Your task to perform on an android device: Search for pizza restaurants on Maps Image 0: 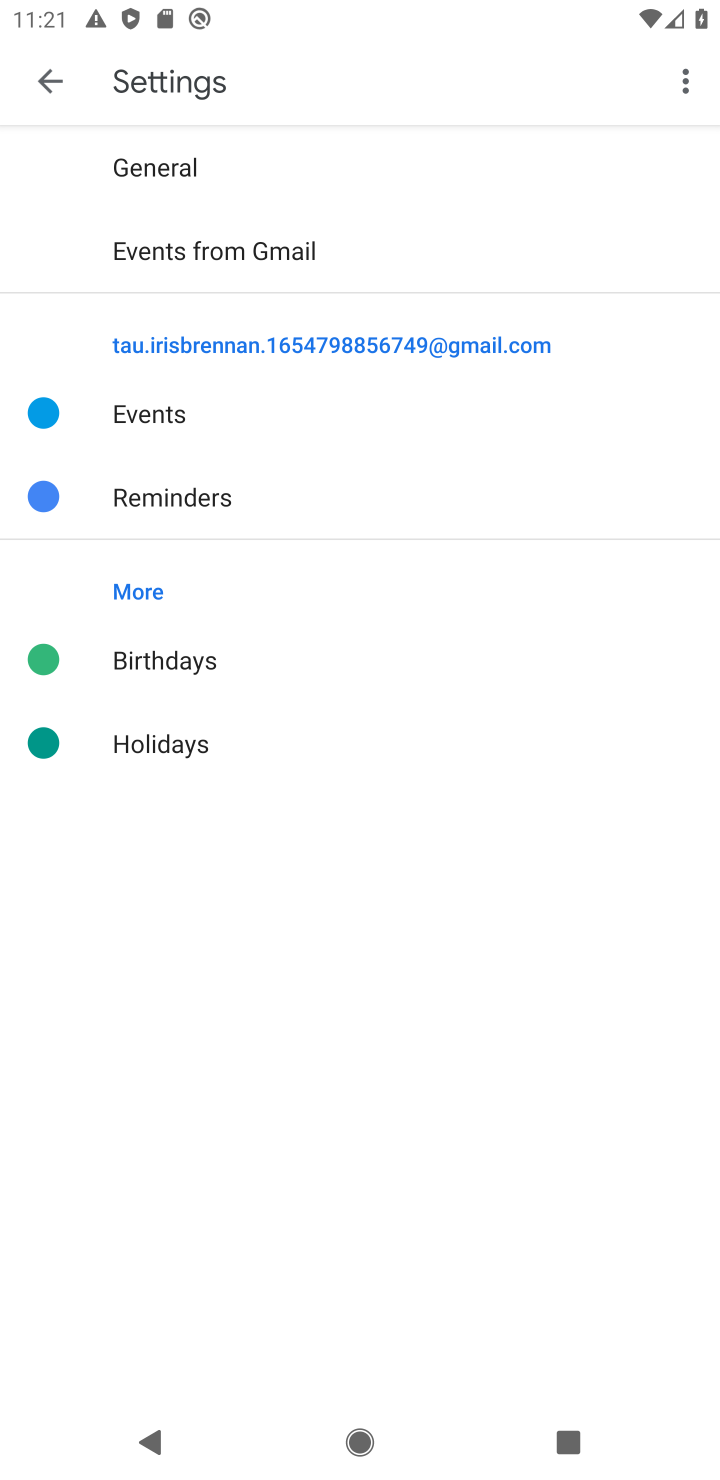
Step 0: press home button
Your task to perform on an android device: Search for pizza restaurants on Maps Image 1: 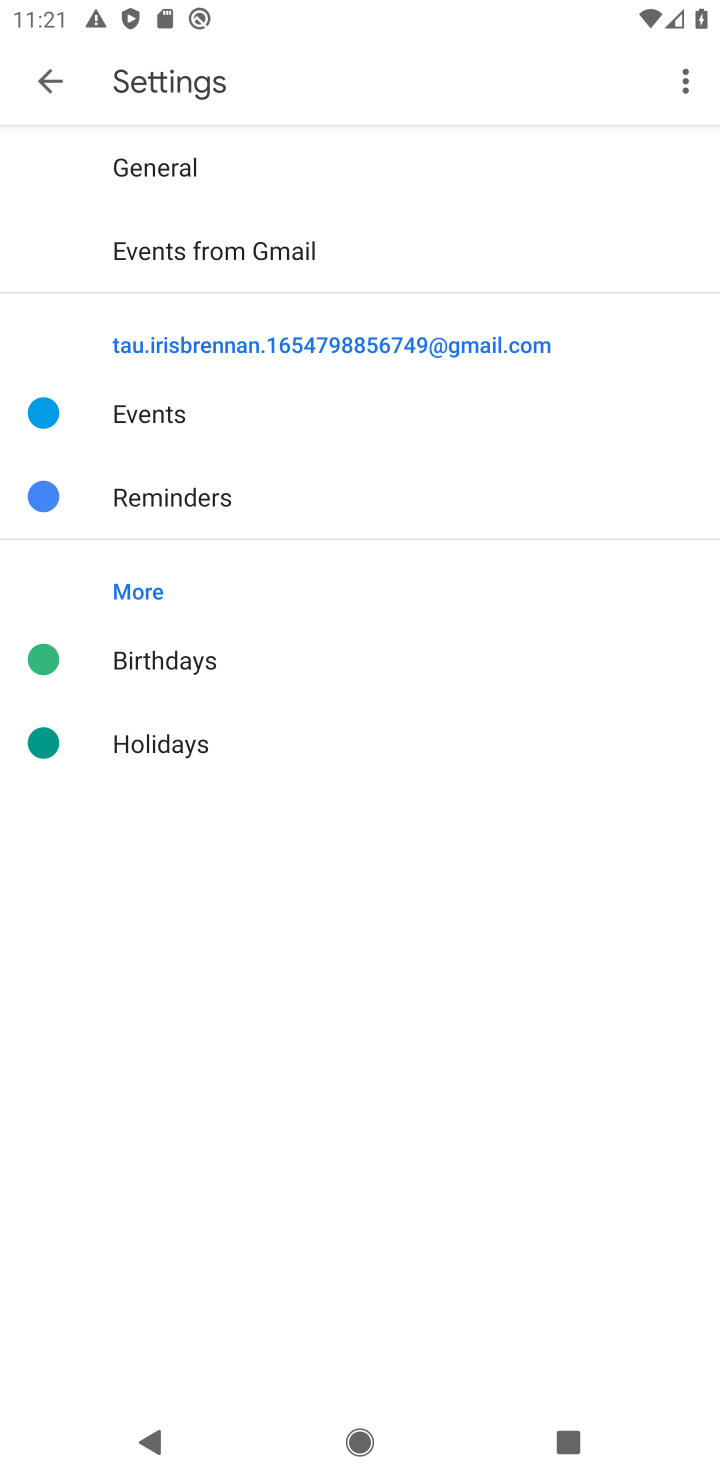
Step 1: click (441, 208)
Your task to perform on an android device: Search for pizza restaurants on Maps Image 2: 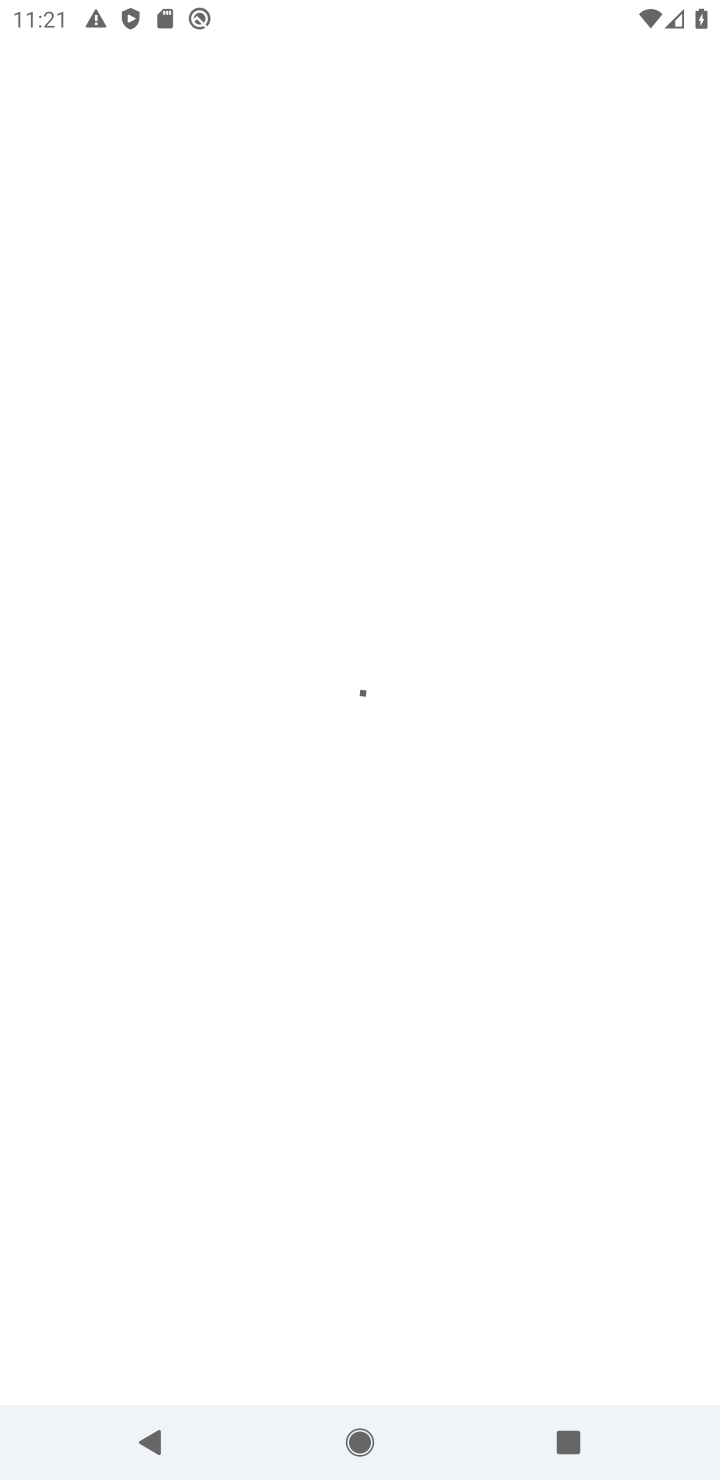
Step 2: press home button
Your task to perform on an android device: Search for pizza restaurants on Maps Image 3: 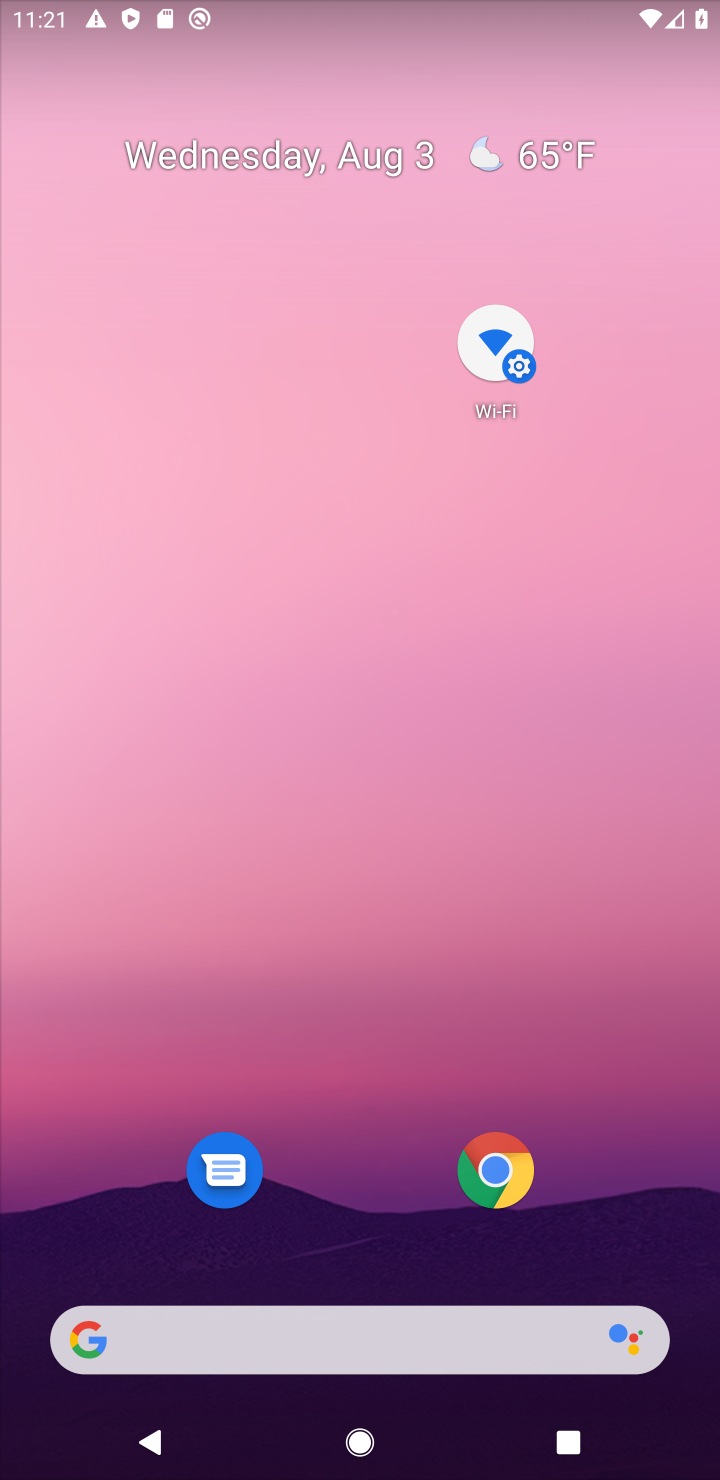
Step 3: click (518, 635)
Your task to perform on an android device: Search for pizza restaurants on Maps Image 4: 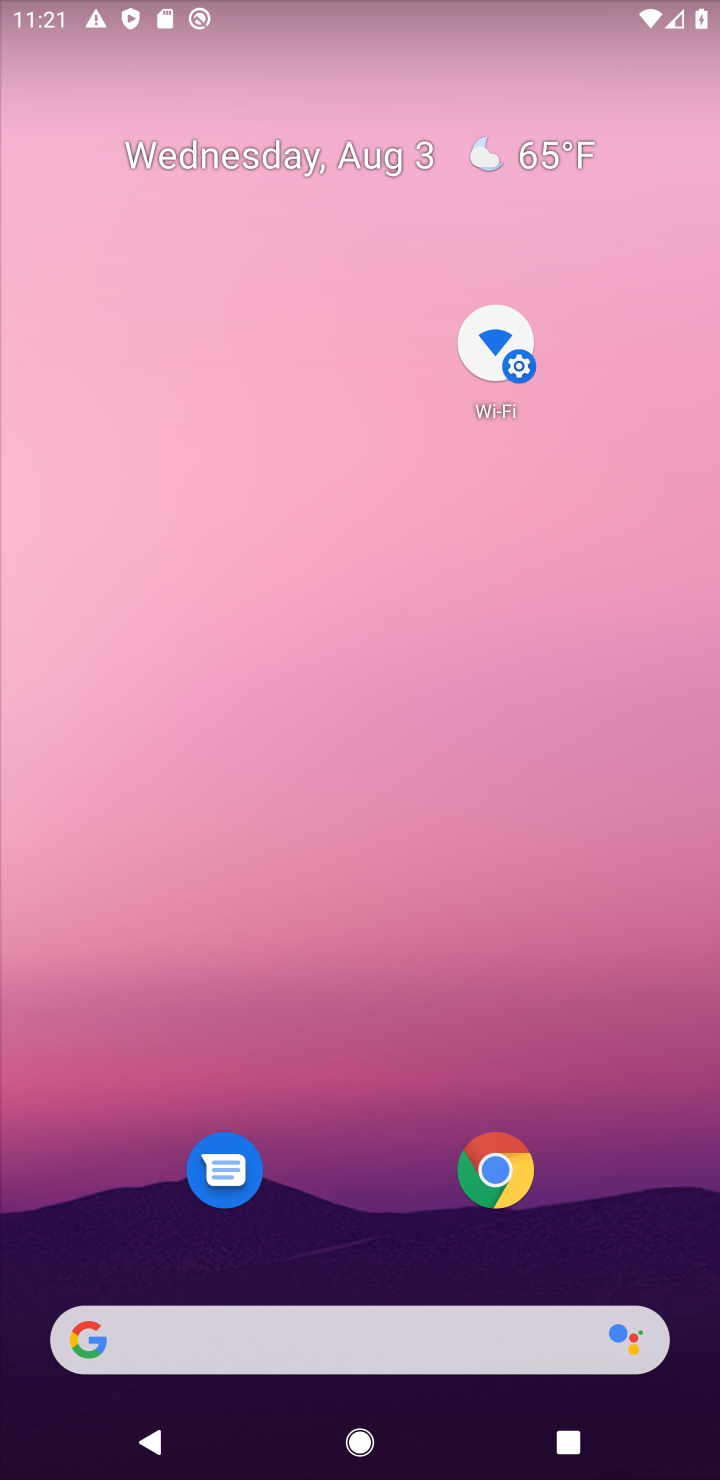
Step 4: drag from (414, 430) to (425, 271)
Your task to perform on an android device: Search for pizza restaurants on Maps Image 5: 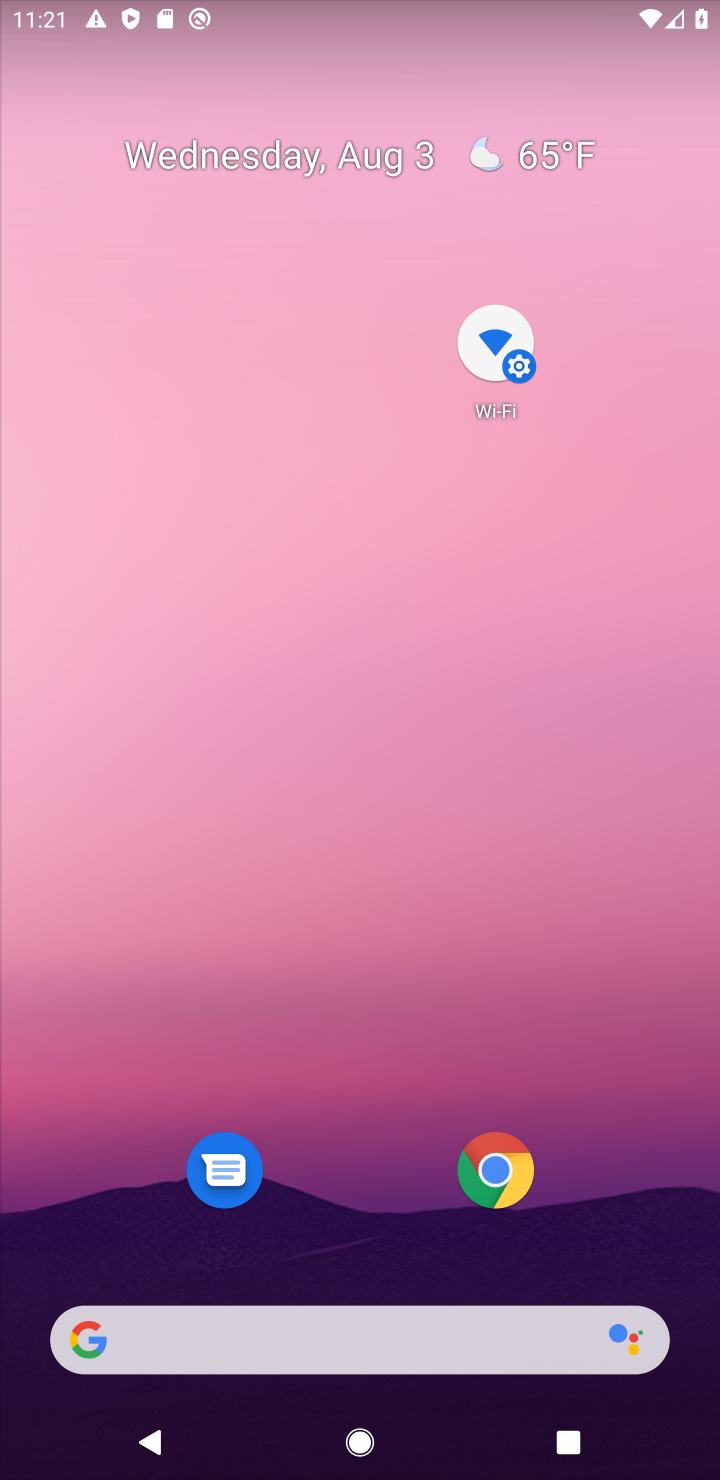
Step 5: drag from (378, 677) to (378, 506)
Your task to perform on an android device: Search for pizza restaurants on Maps Image 6: 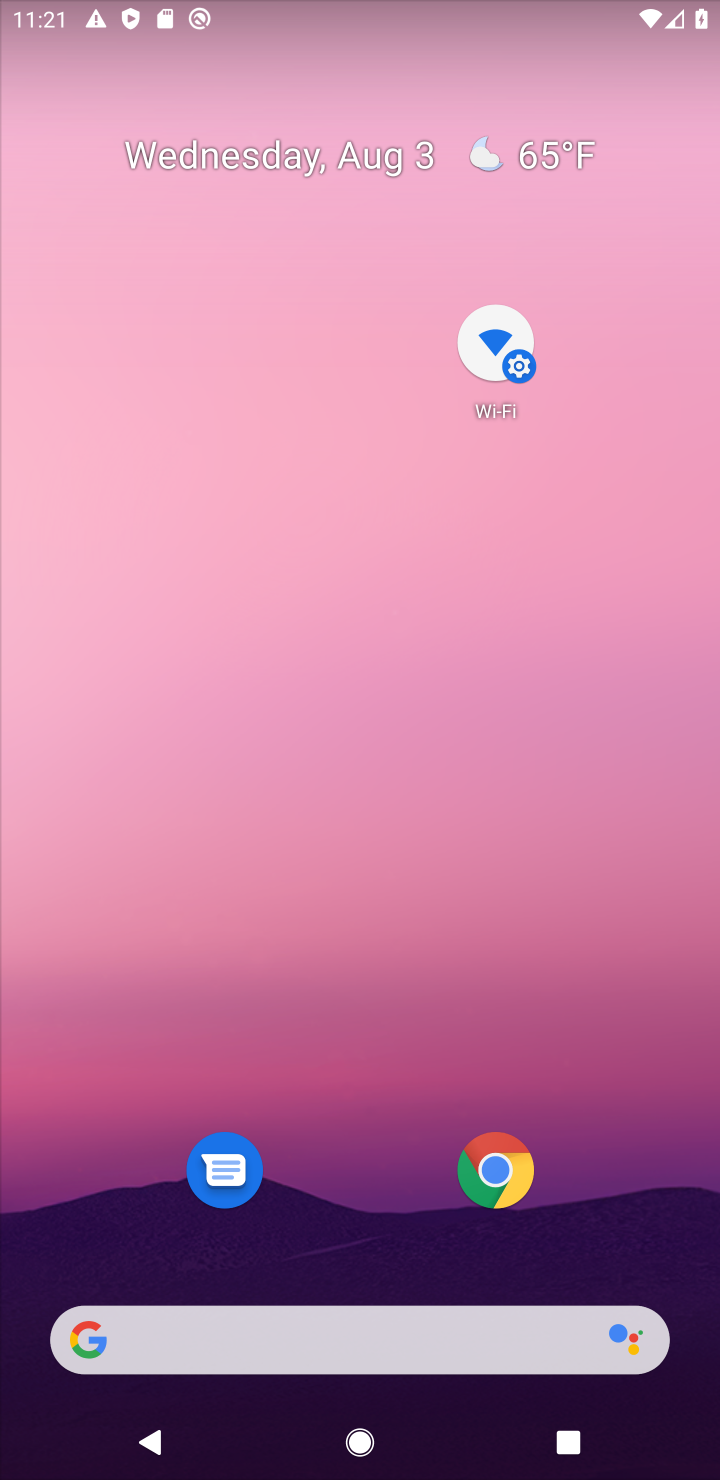
Step 6: drag from (368, 963) to (433, 252)
Your task to perform on an android device: Search for pizza restaurants on Maps Image 7: 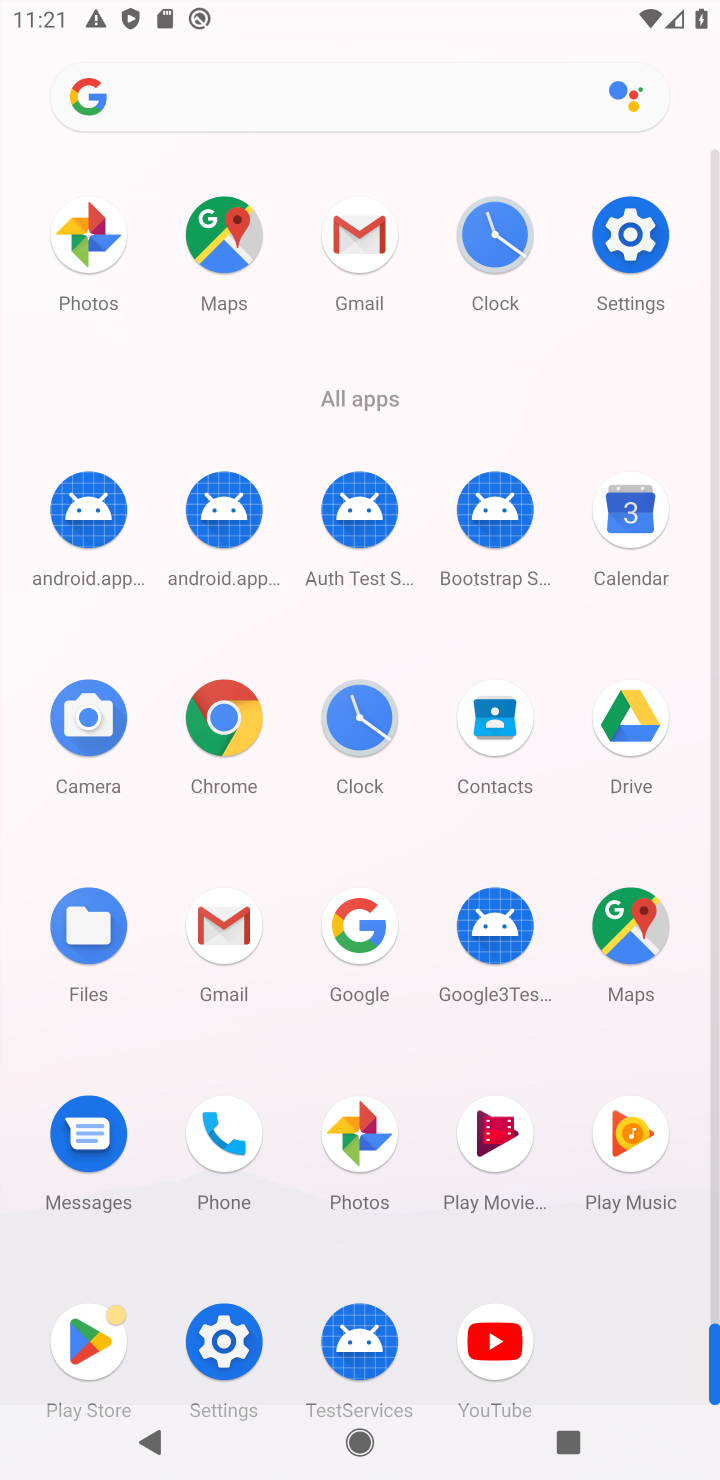
Step 7: click (622, 914)
Your task to perform on an android device: Search for pizza restaurants on Maps Image 8: 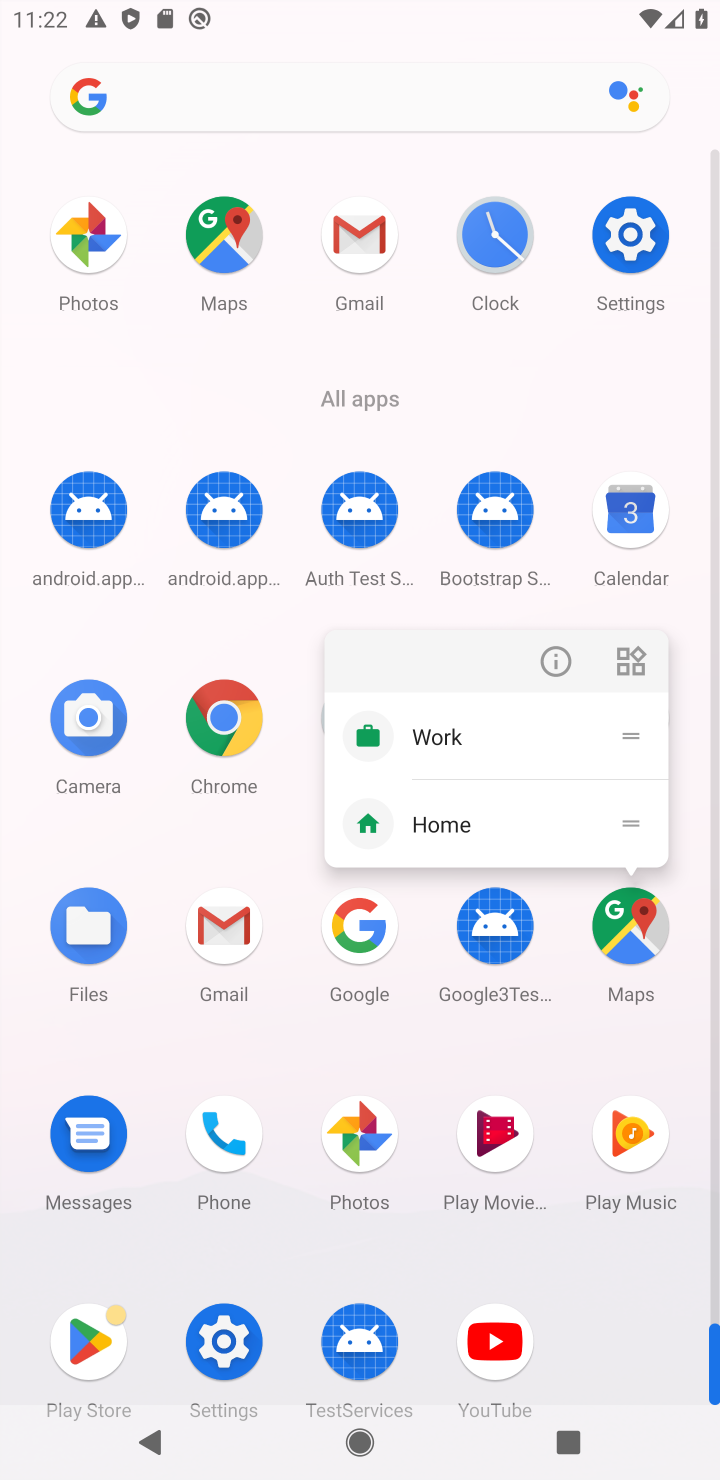
Step 8: click (560, 641)
Your task to perform on an android device: Search for pizza restaurants on Maps Image 9: 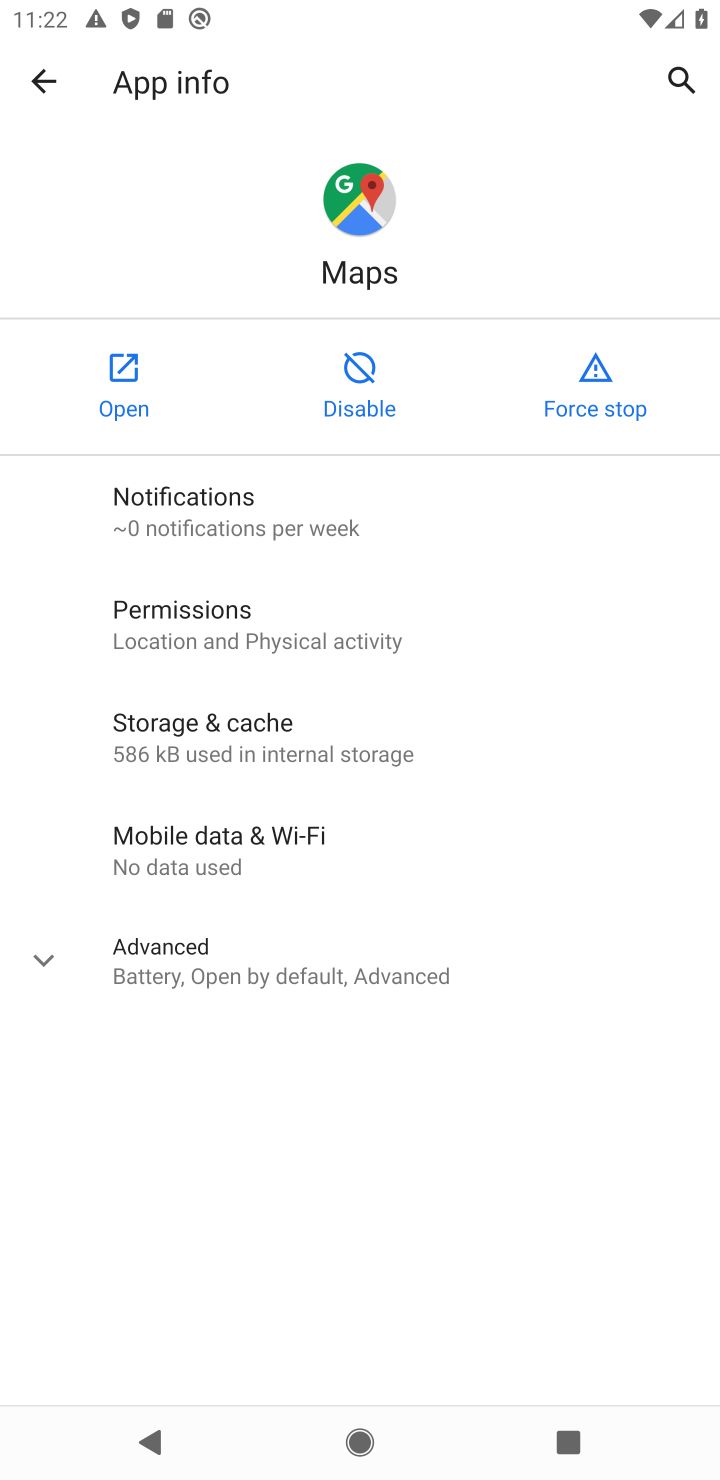
Step 9: click (127, 371)
Your task to perform on an android device: Search for pizza restaurants on Maps Image 10: 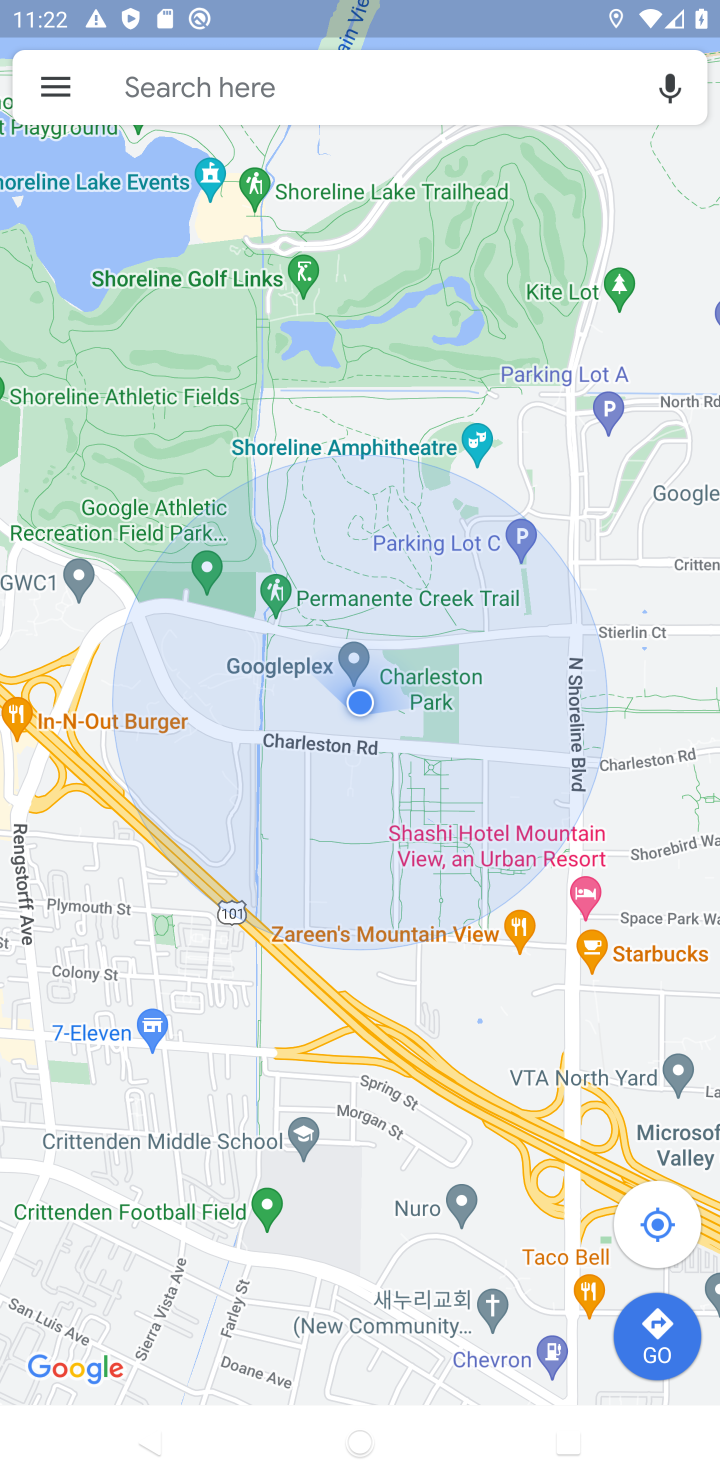
Step 10: click (251, 98)
Your task to perform on an android device: Search for pizza restaurants on Maps Image 11: 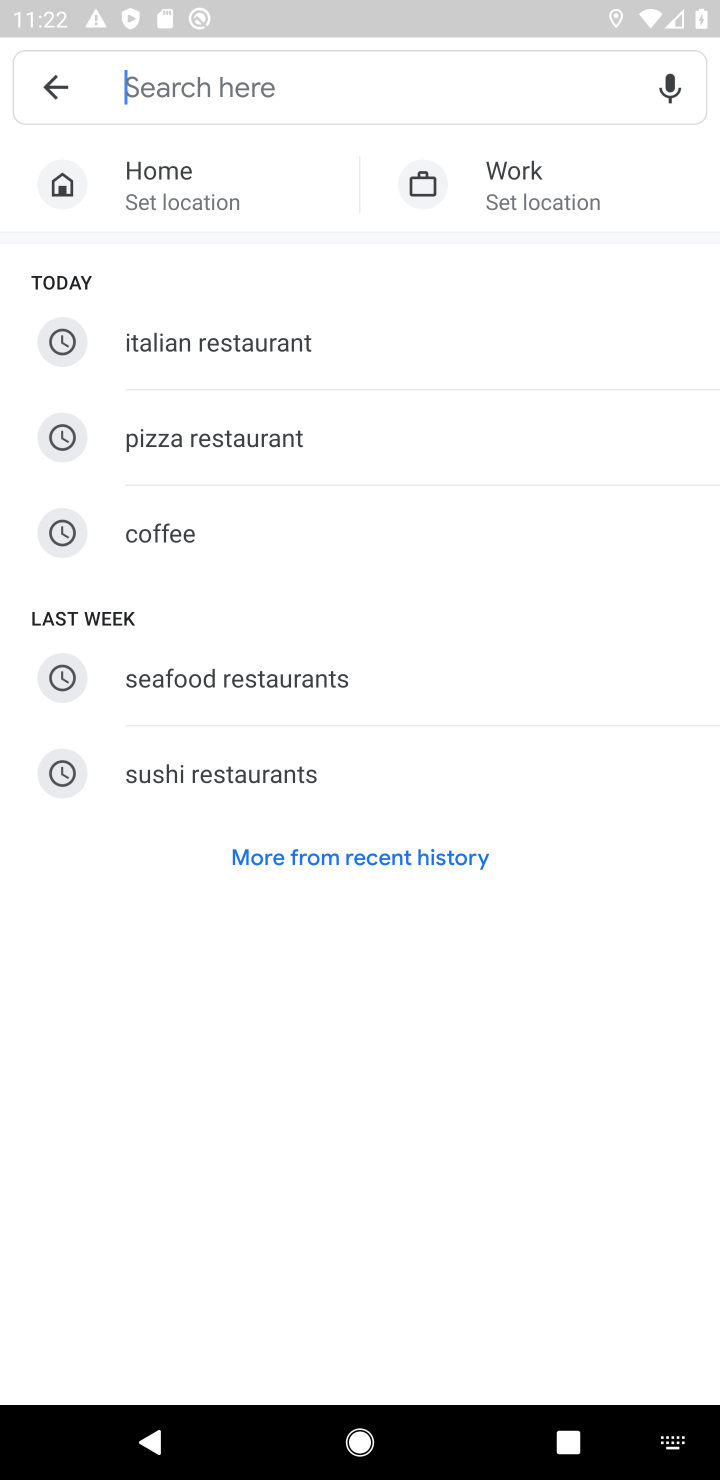
Step 11: click (203, 72)
Your task to perform on an android device: Search for pizza restaurants on Maps Image 12: 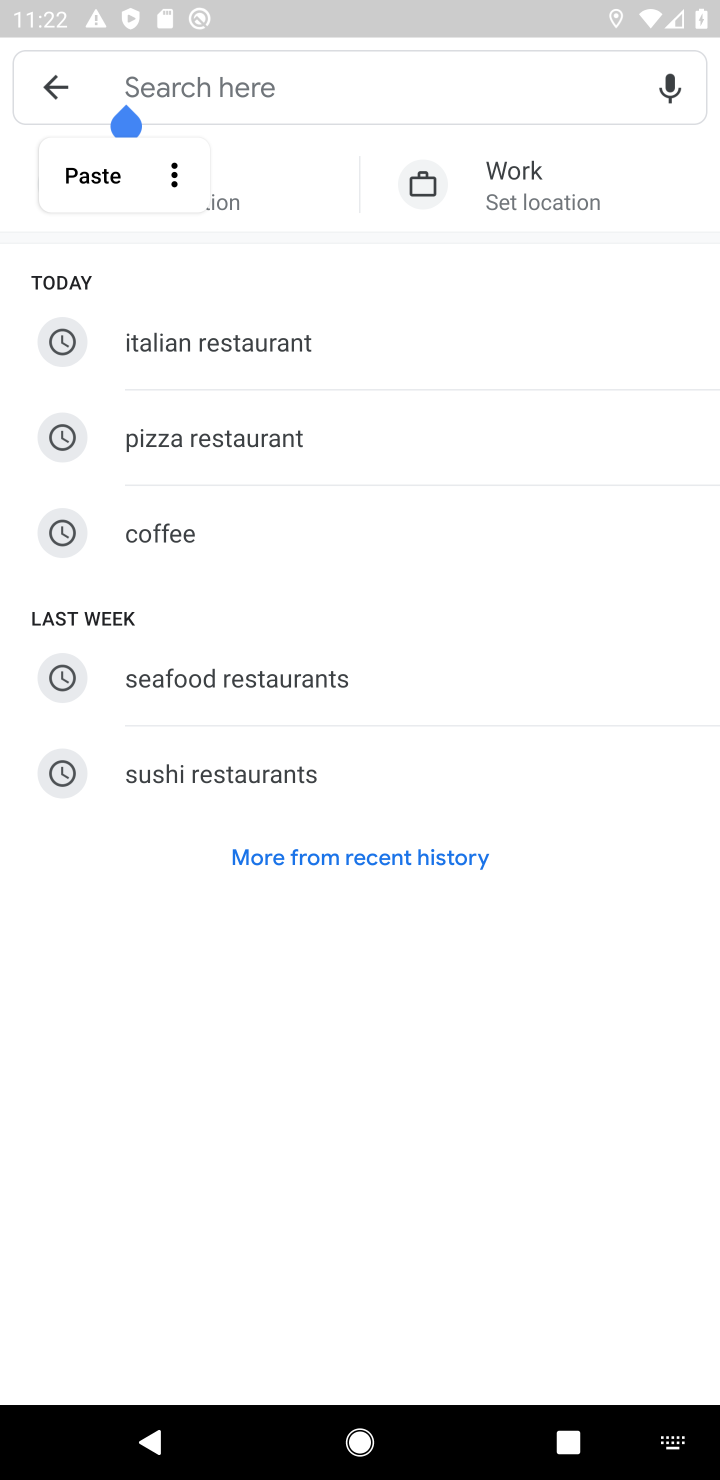
Step 12: click (146, 444)
Your task to perform on an android device: Search for pizza restaurants on Maps Image 13: 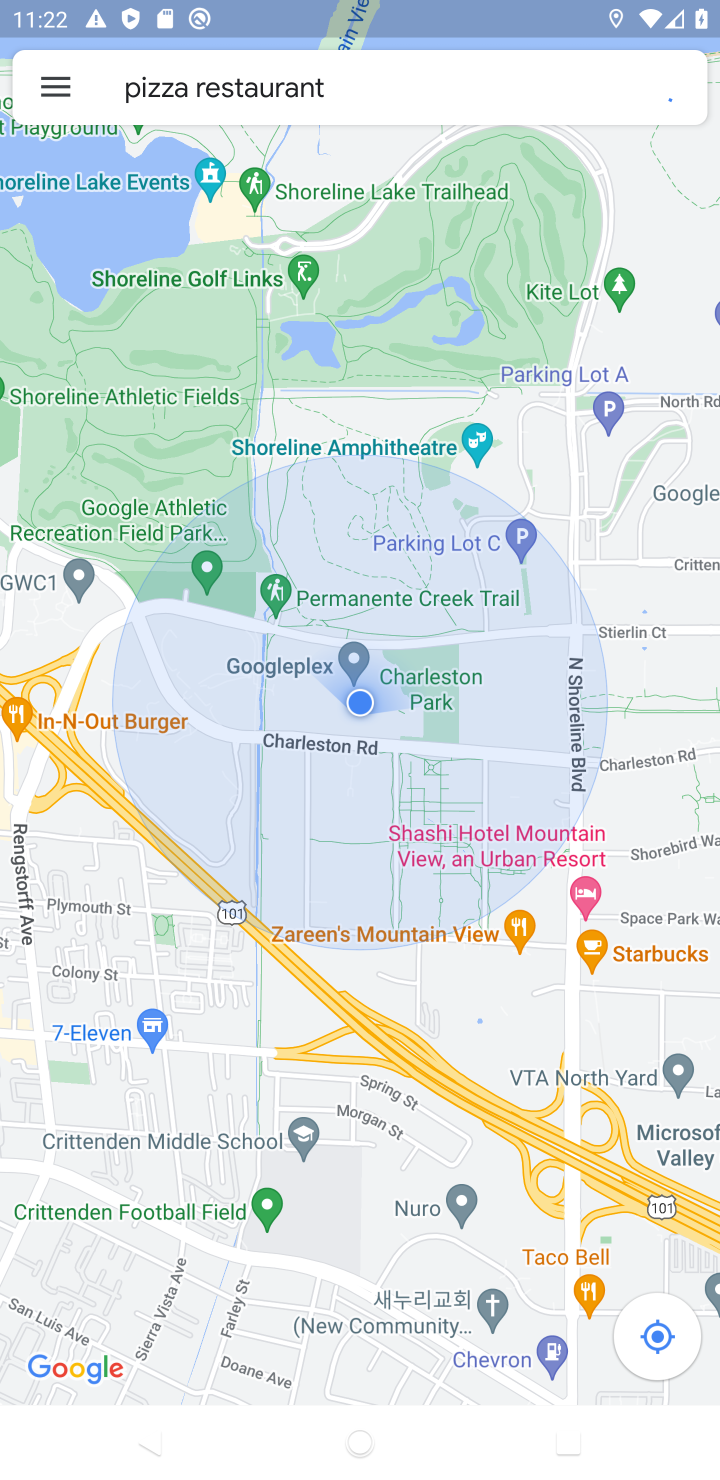
Step 13: task complete